Your task to perform on an android device: open device folders in google photos Image 0: 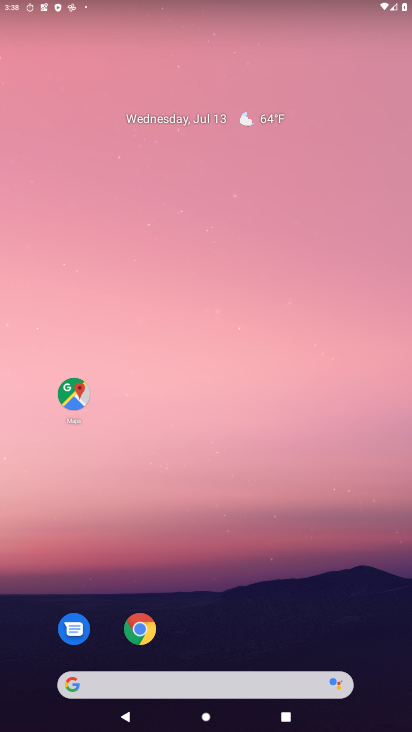
Step 0: drag from (312, 609) to (336, 54)
Your task to perform on an android device: open device folders in google photos Image 1: 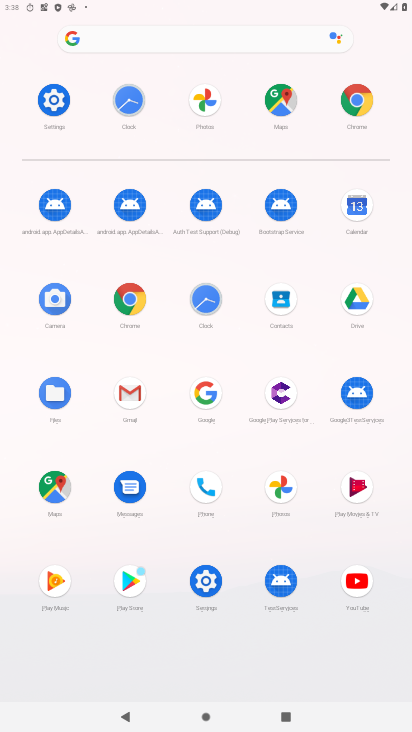
Step 1: click (276, 485)
Your task to perform on an android device: open device folders in google photos Image 2: 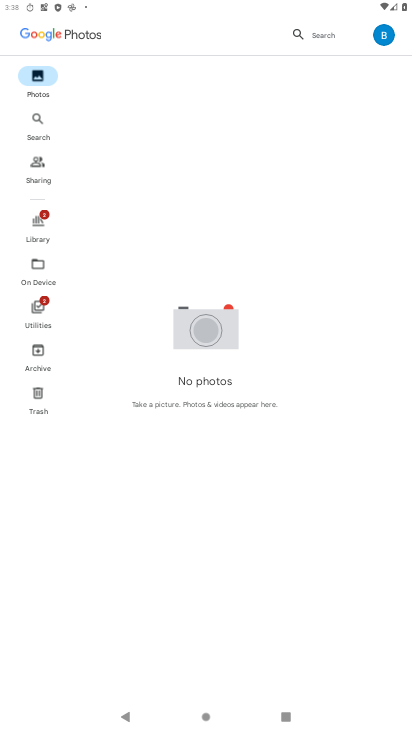
Step 2: click (42, 260)
Your task to perform on an android device: open device folders in google photos Image 3: 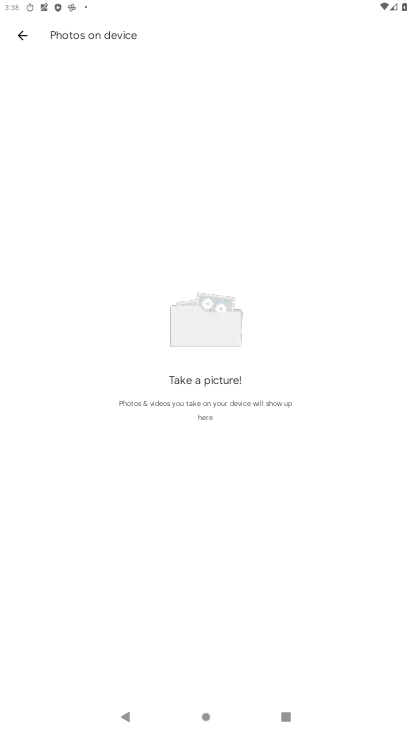
Step 3: task complete